Your task to perform on an android device: Open the web browser Image 0: 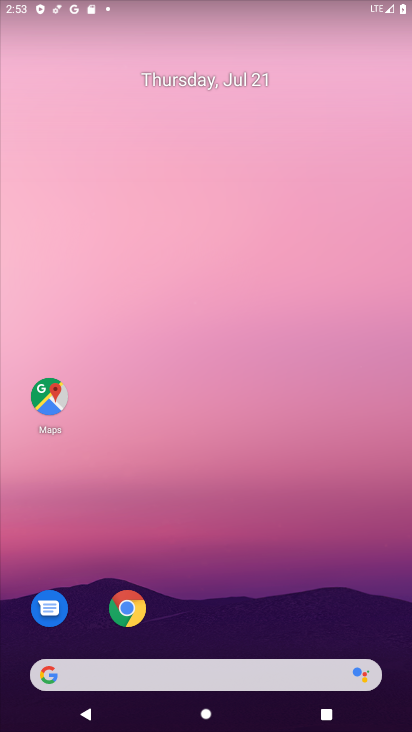
Step 0: click (182, 671)
Your task to perform on an android device: Open the web browser Image 1: 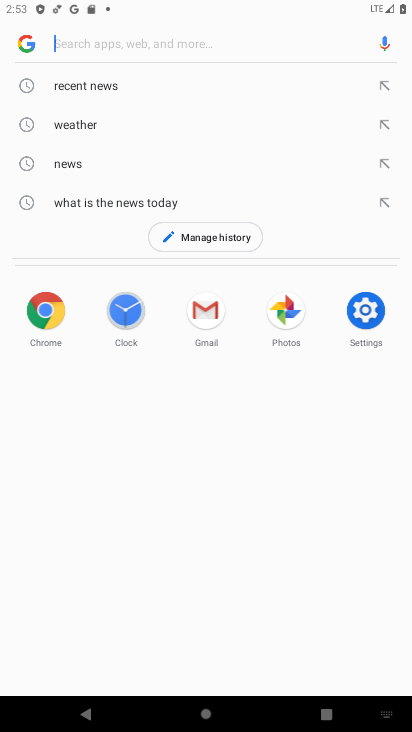
Step 1: task complete